Your task to perform on an android device: uninstall "AliExpress" Image 0: 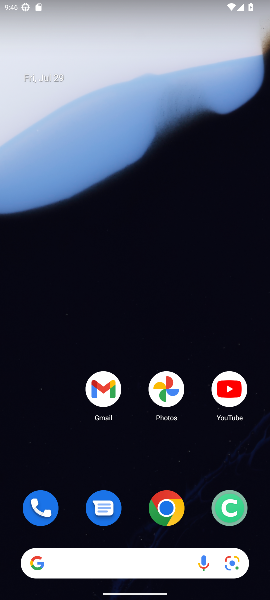
Step 0: press home button
Your task to perform on an android device: uninstall "AliExpress" Image 1: 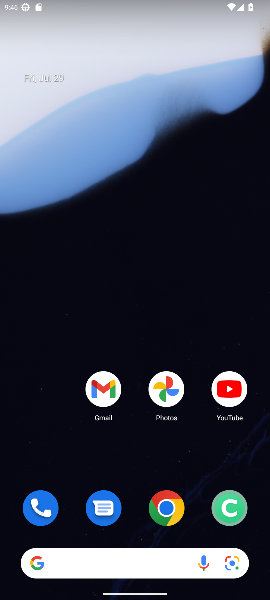
Step 1: drag from (136, 549) to (192, 45)
Your task to perform on an android device: uninstall "AliExpress" Image 2: 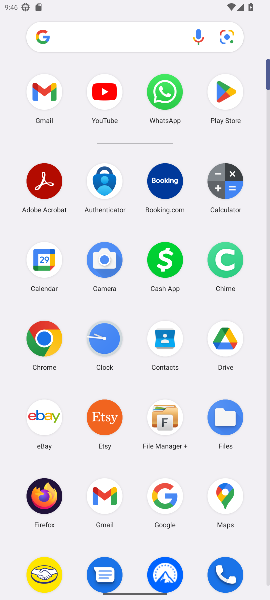
Step 2: click (227, 96)
Your task to perform on an android device: uninstall "AliExpress" Image 3: 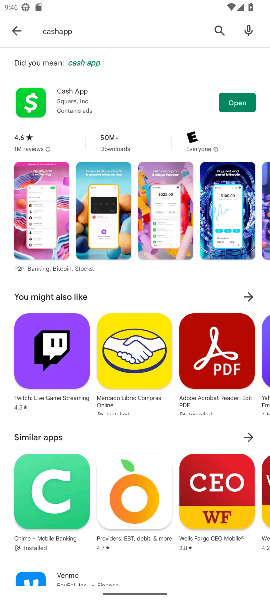
Step 3: click (223, 27)
Your task to perform on an android device: uninstall "AliExpress" Image 4: 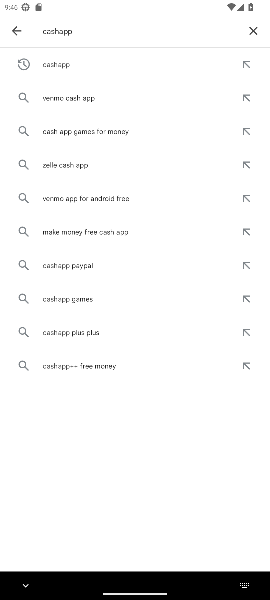
Step 4: click (251, 27)
Your task to perform on an android device: uninstall "AliExpress" Image 5: 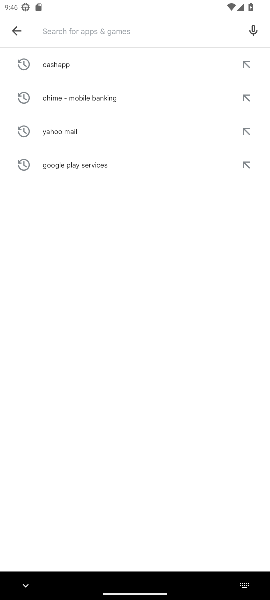
Step 5: type "aliexpress"
Your task to perform on an android device: uninstall "AliExpress" Image 6: 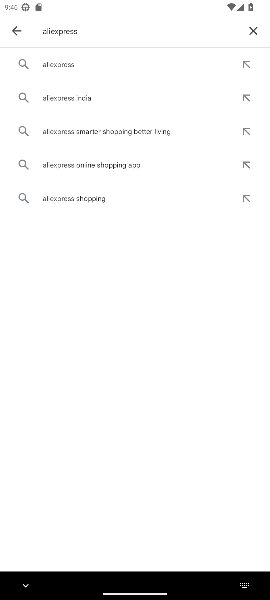
Step 6: task complete